Your task to perform on an android device: turn off javascript in the chrome app Image 0: 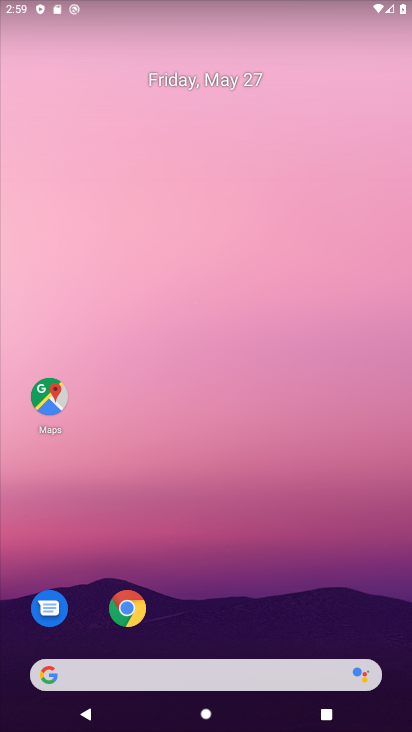
Step 0: click (120, 604)
Your task to perform on an android device: turn off javascript in the chrome app Image 1: 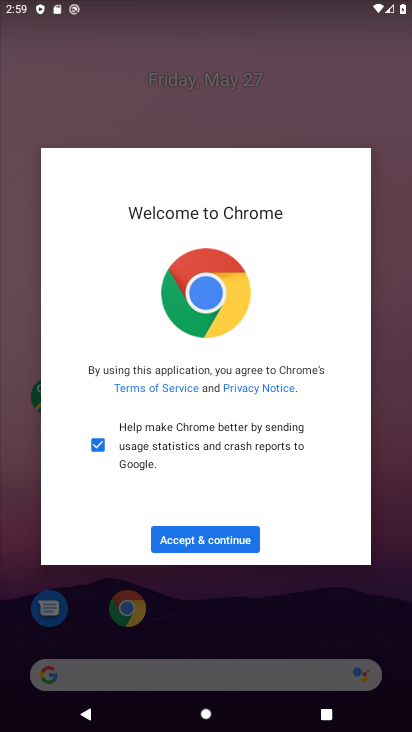
Step 1: click (227, 523)
Your task to perform on an android device: turn off javascript in the chrome app Image 2: 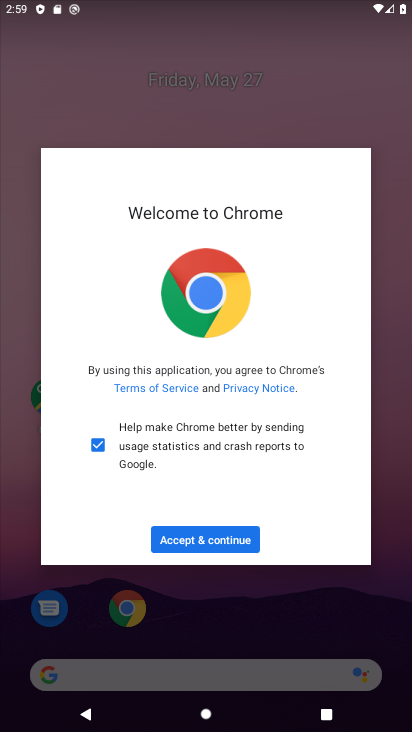
Step 2: click (221, 534)
Your task to perform on an android device: turn off javascript in the chrome app Image 3: 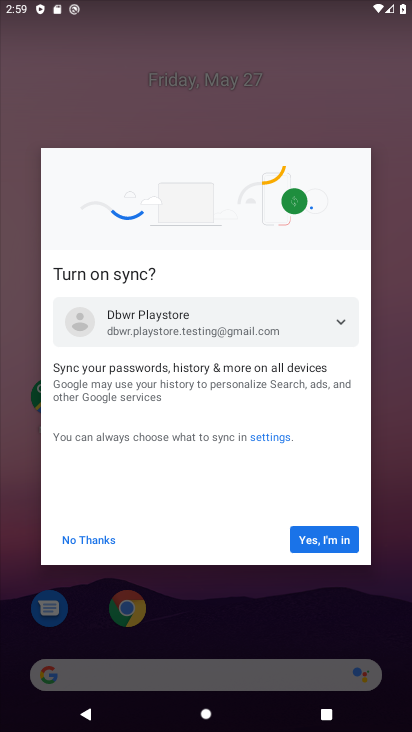
Step 3: click (314, 539)
Your task to perform on an android device: turn off javascript in the chrome app Image 4: 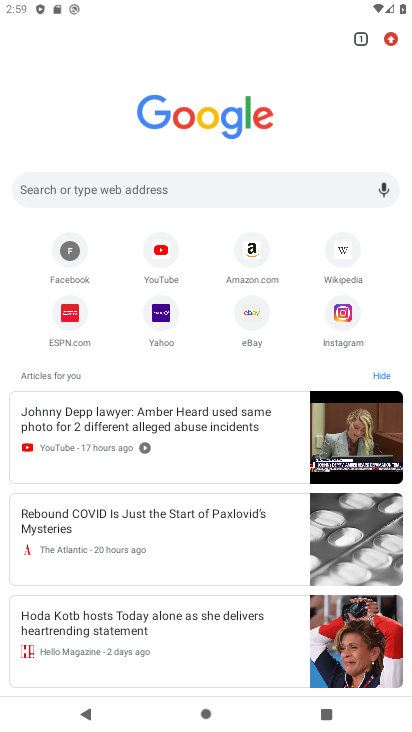
Step 4: drag from (394, 29) to (292, 370)
Your task to perform on an android device: turn off javascript in the chrome app Image 5: 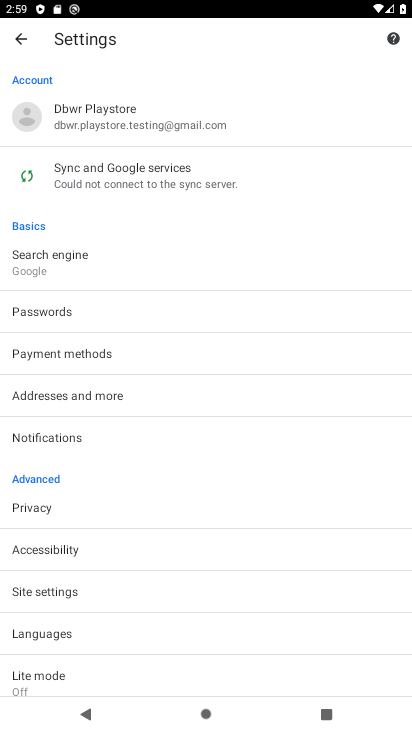
Step 5: drag from (95, 626) to (158, 440)
Your task to perform on an android device: turn off javascript in the chrome app Image 6: 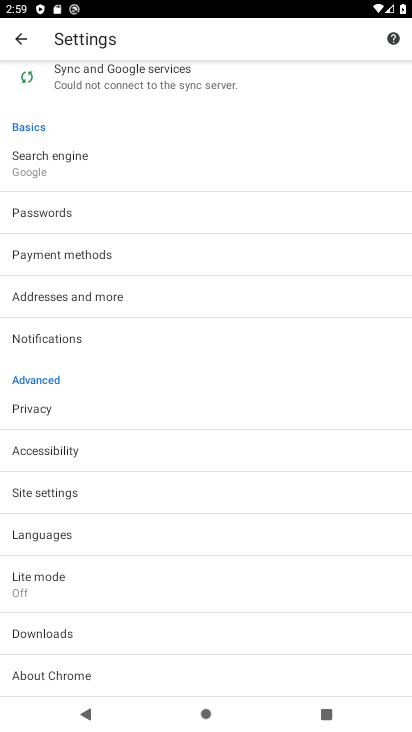
Step 6: click (104, 502)
Your task to perform on an android device: turn off javascript in the chrome app Image 7: 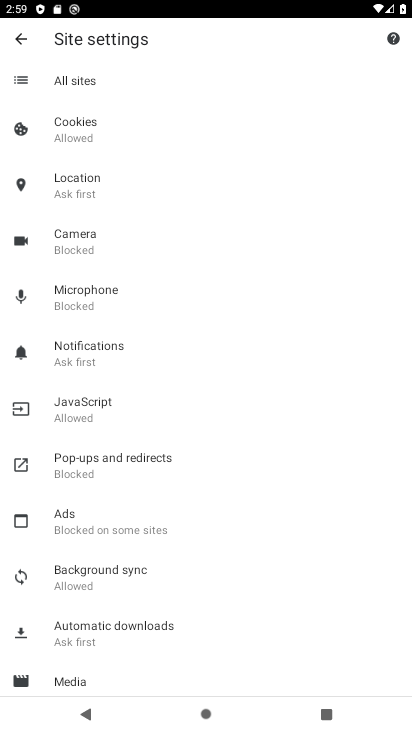
Step 7: click (151, 402)
Your task to perform on an android device: turn off javascript in the chrome app Image 8: 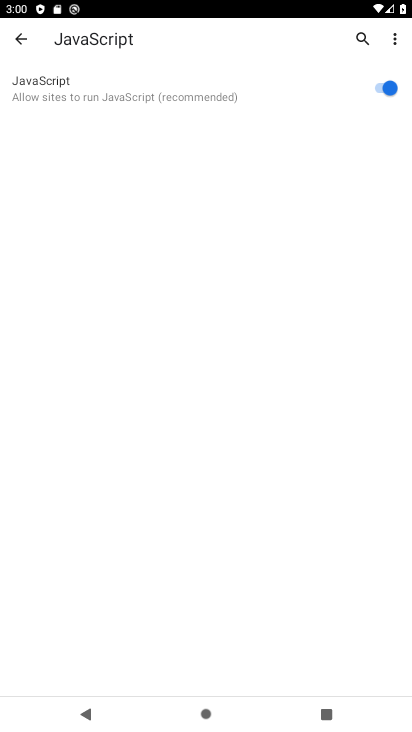
Step 8: click (397, 95)
Your task to perform on an android device: turn off javascript in the chrome app Image 9: 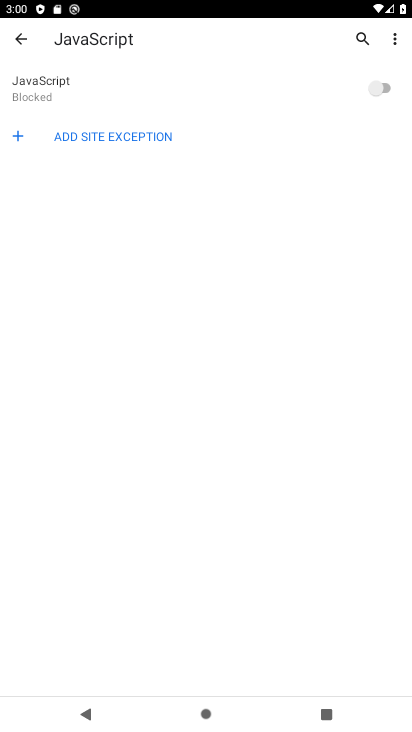
Step 9: task complete